Your task to perform on an android device: Open battery settings Image 0: 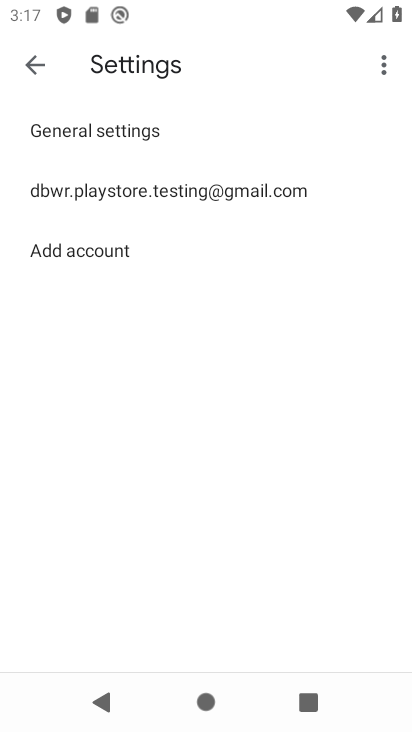
Step 0: press back button
Your task to perform on an android device: Open battery settings Image 1: 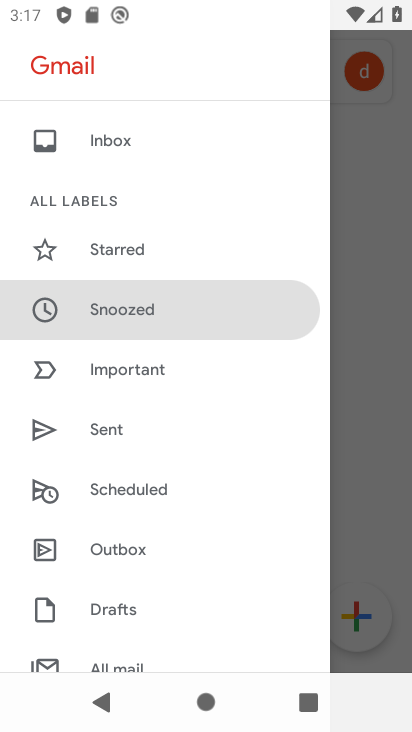
Step 1: press back button
Your task to perform on an android device: Open battery settings Image 2: 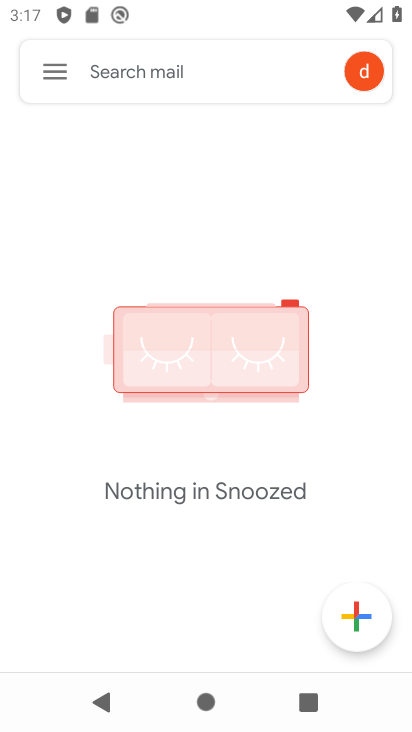
Step 2: press back button
Your task to perform on an android device: Open battery settings Image 3: 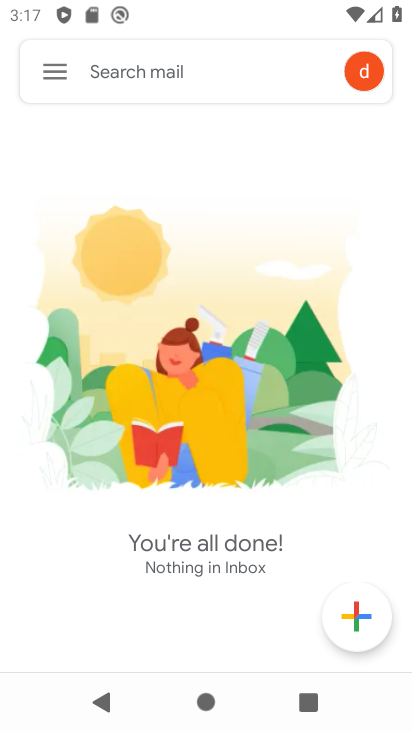
Step 3: press back button
Your task to perform on an android device: Open battery settings Image 4: 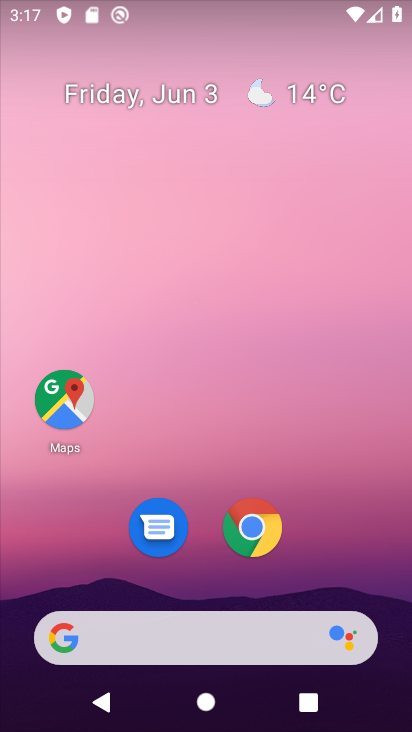
Step 4: drag from (349, 561) to (299, 32)
Your task to perform on an android device: Open battery settings Image 5: 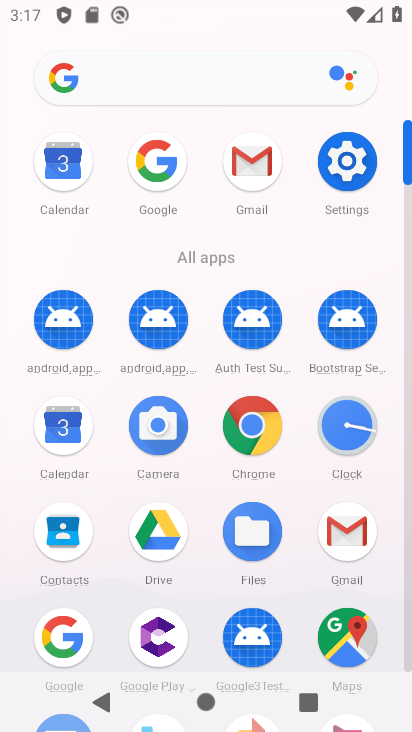
Step 5: click (346, 164)
Your task to perform on an android device: Open battery settings Image 6: 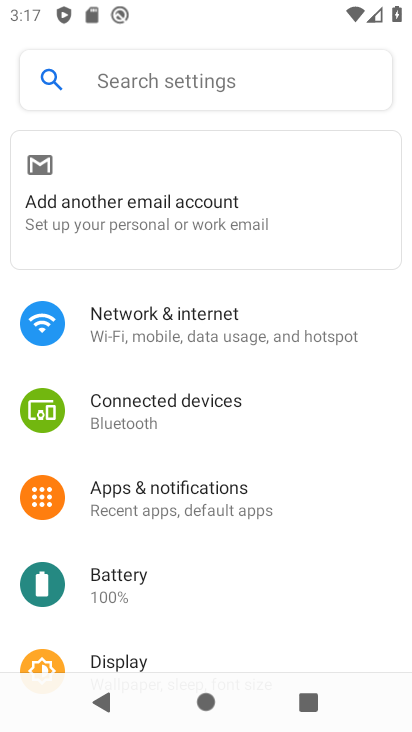
Step 6: drag from (191, 439) to (272, 347)
Your task to perform on an android device: Open battery settings Image 7: 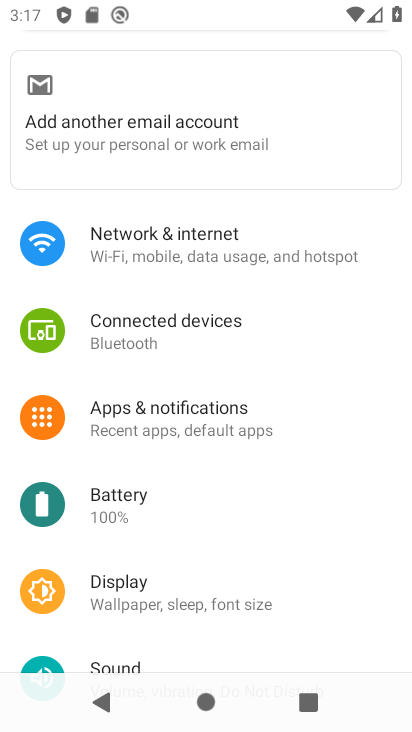
Step 7: click (149, 509)
Your task to perform on an android device: Open battery settings Image 8: 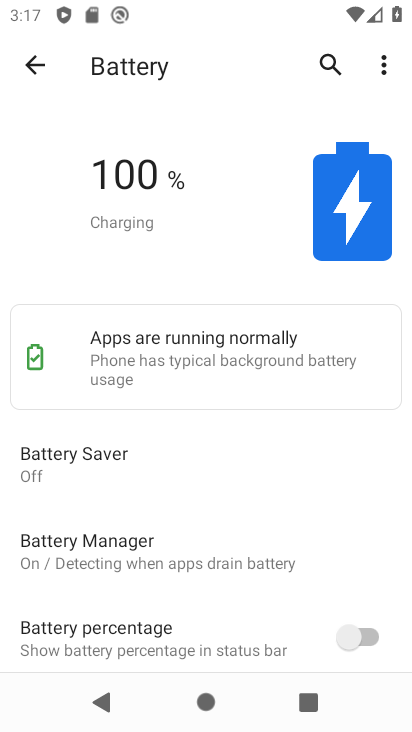
Step 8: task complete